Your task to perform on an android device: open app "Facebook Messenger" Image 0: 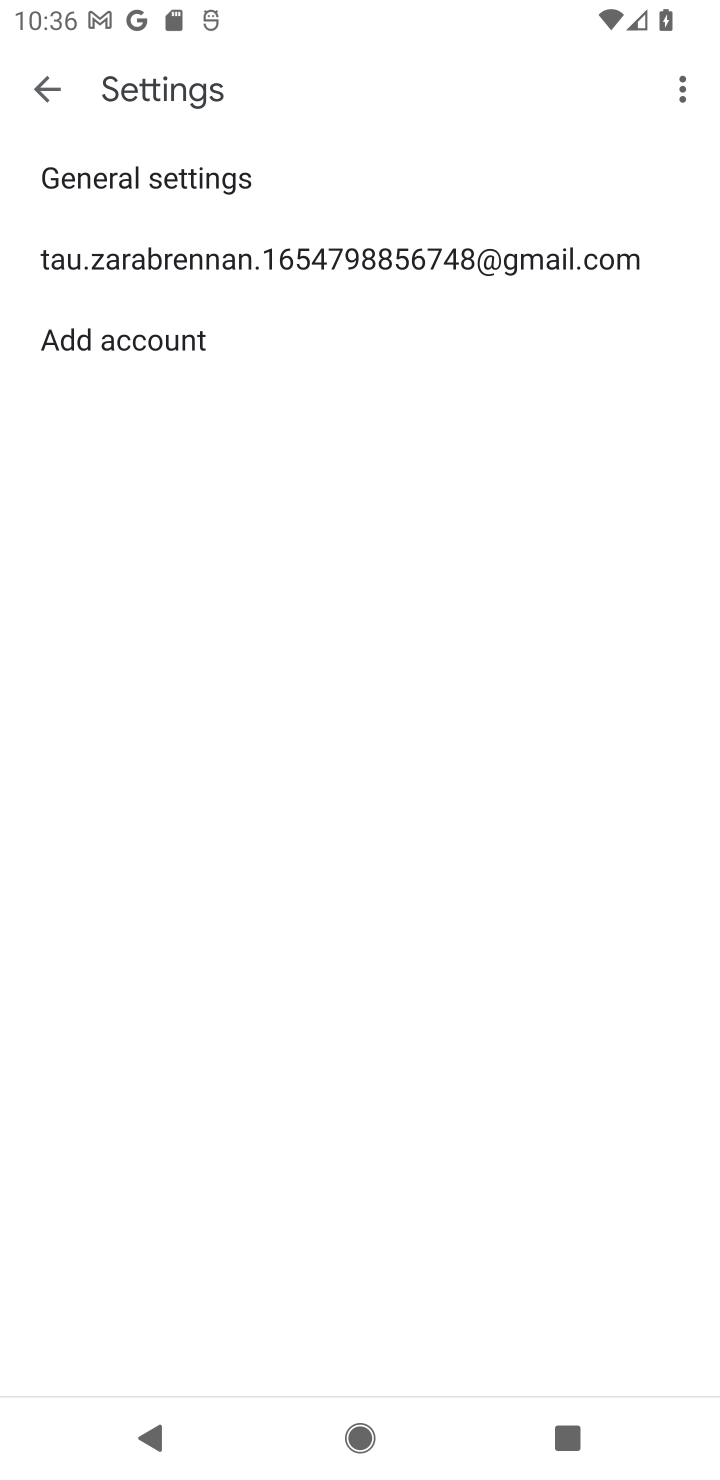
Step 0: press home button
Your task to perform on an android device: open app "Facebook Messenger" Image 1: 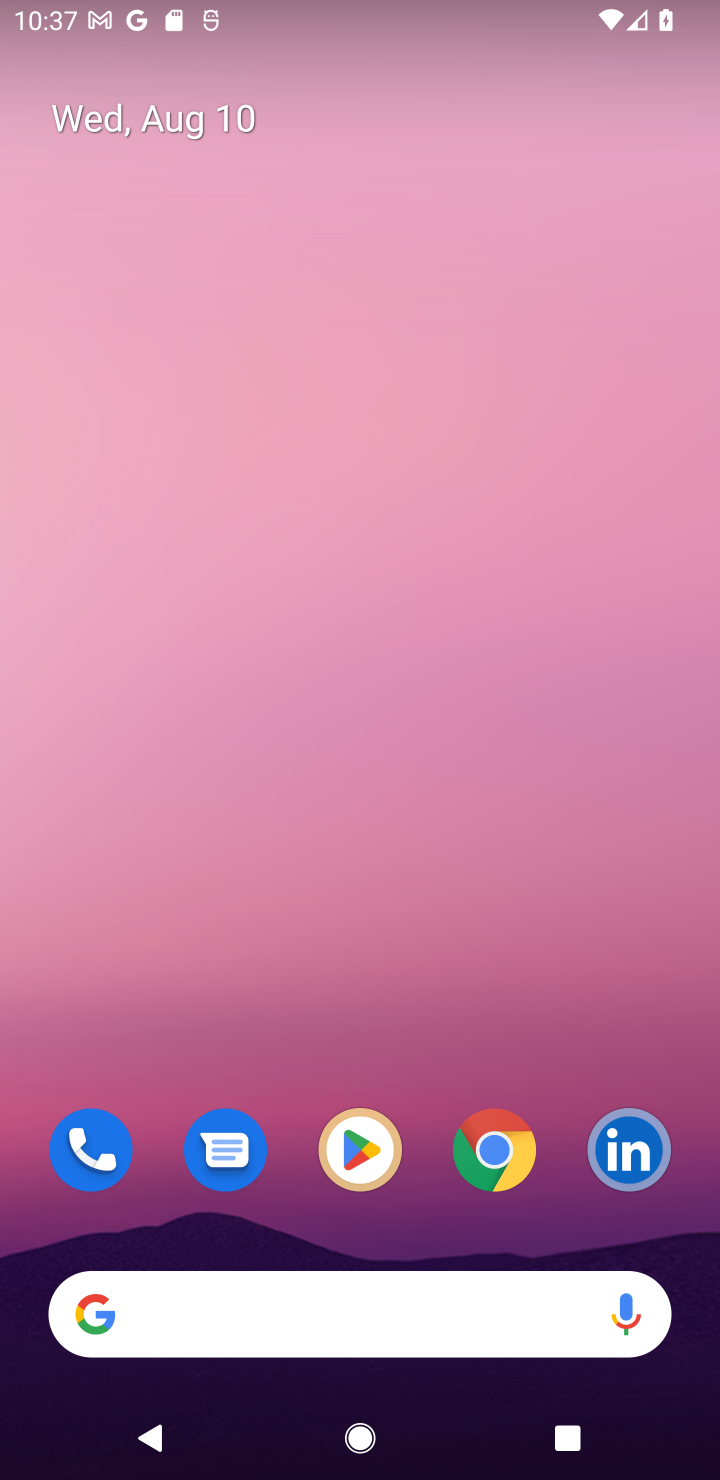
Step 1: click (355, 1174)
Your task to perform on an android device: open app "Facebook Messenger" Image 2: 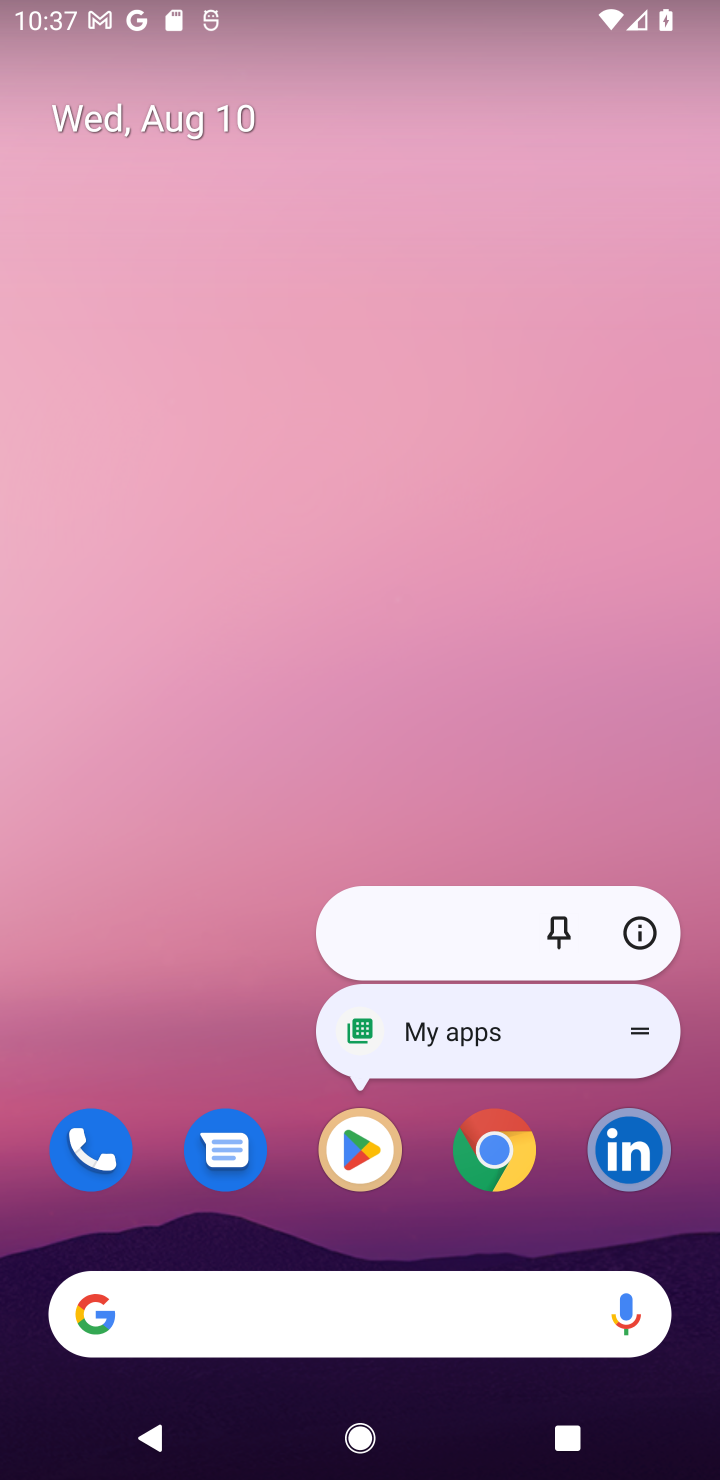
Step 2: click (350, 1151)
Your task to perform on an android device: open app "Facebook Messenger" Image 3: 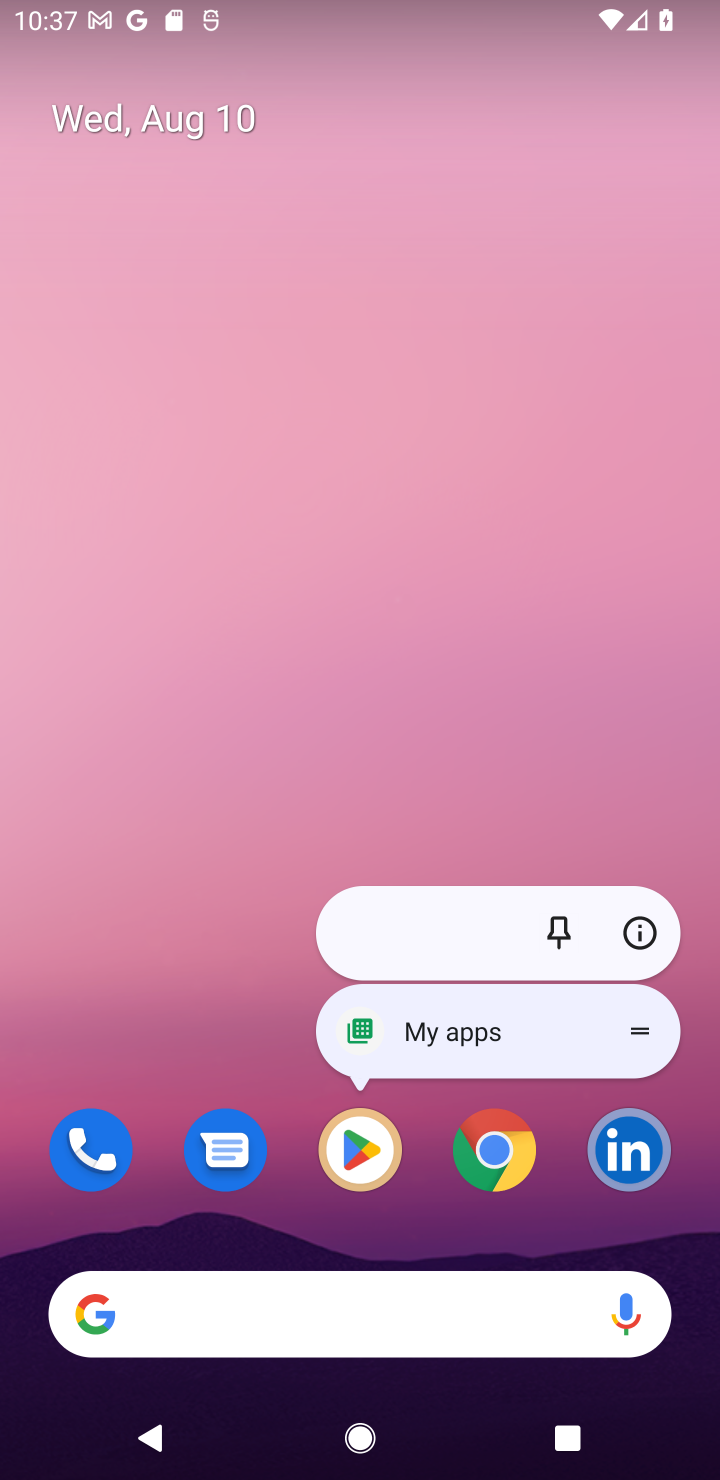
Step 3: click (350, 1151)
Your task to perform on an android device: open app "Facebook Messenger" Image 4: 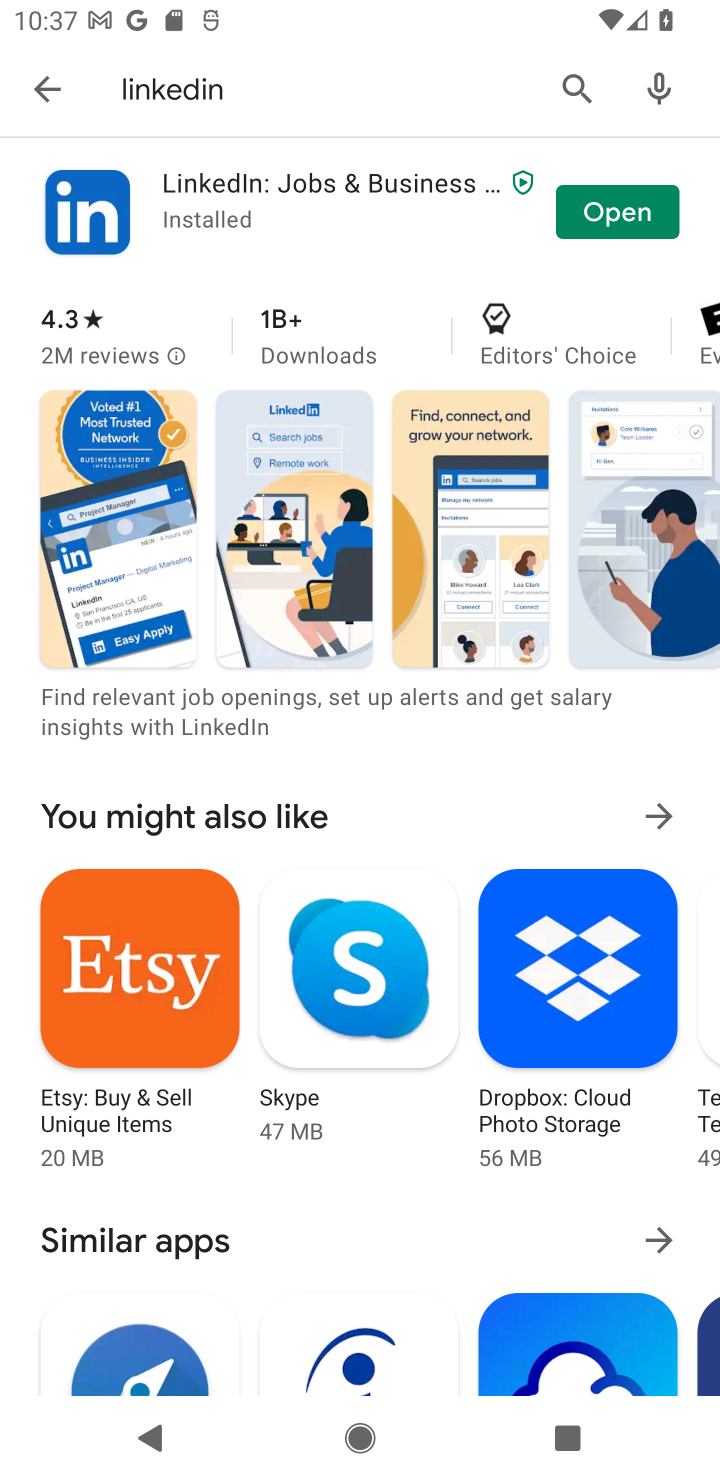
Step 4: click (585, 85)
Your task to perform on an android device: open app "Facebook Messenger" Image 5: 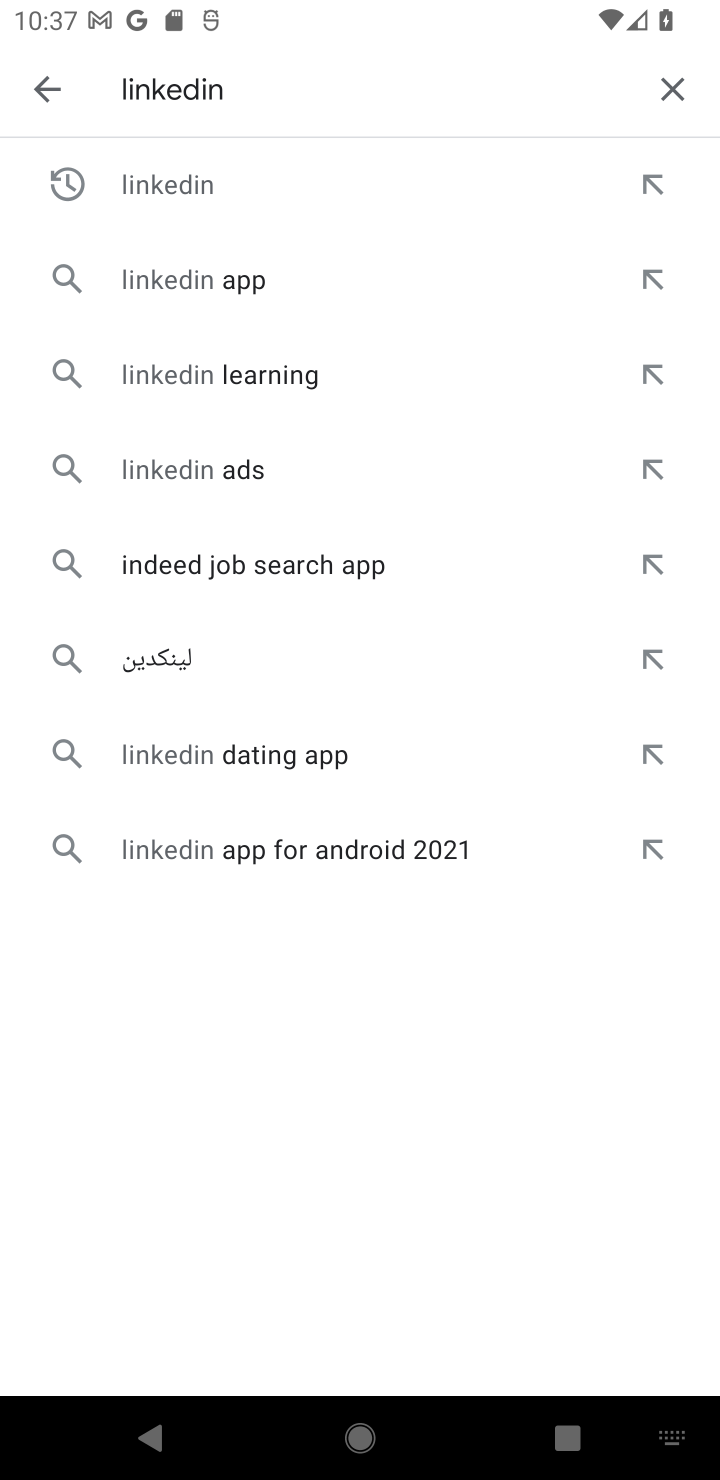
Step 5: click (660, 76)
Your task to perform on an android device: open app "Facebook Messenger" Image 6: 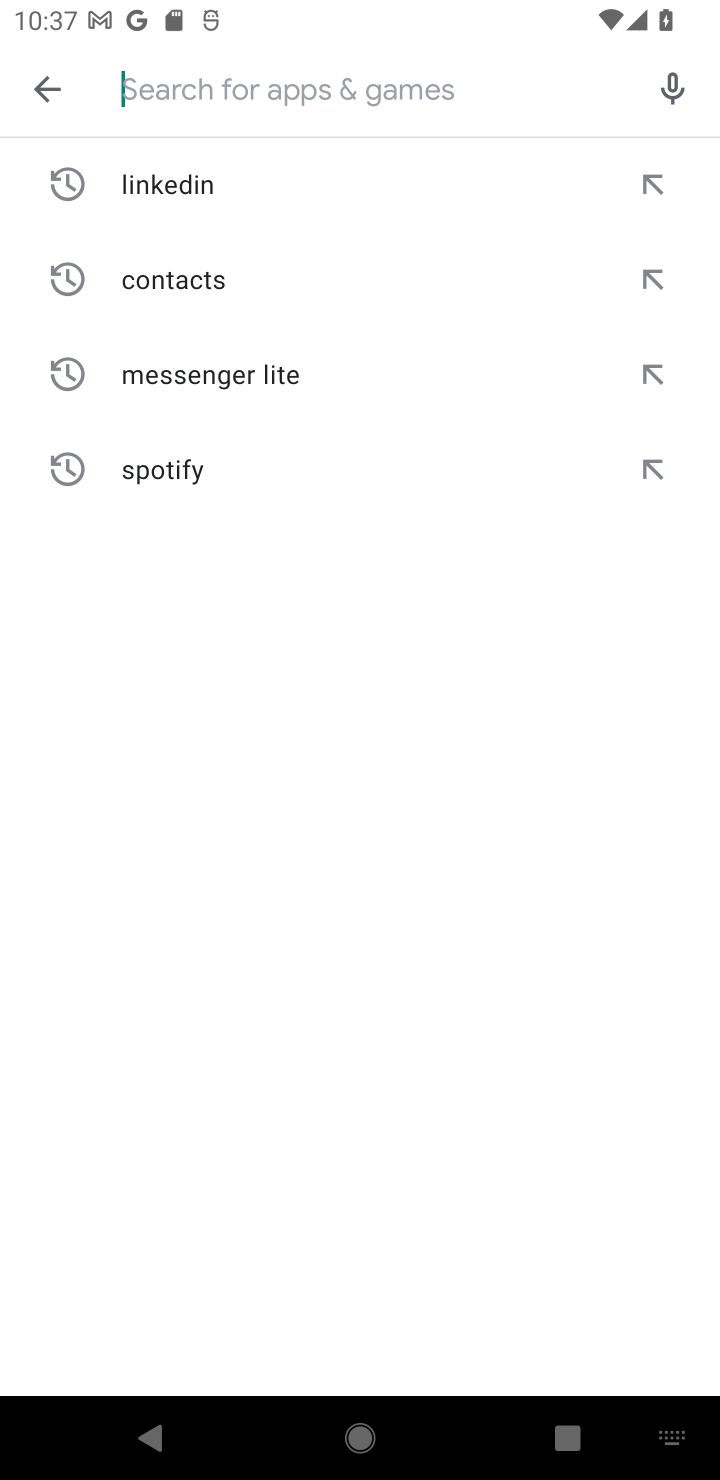
Step 6: type "Facebook Messenger"
Your task to perform on an android device: open app "Facebook Messenger" Image 7: 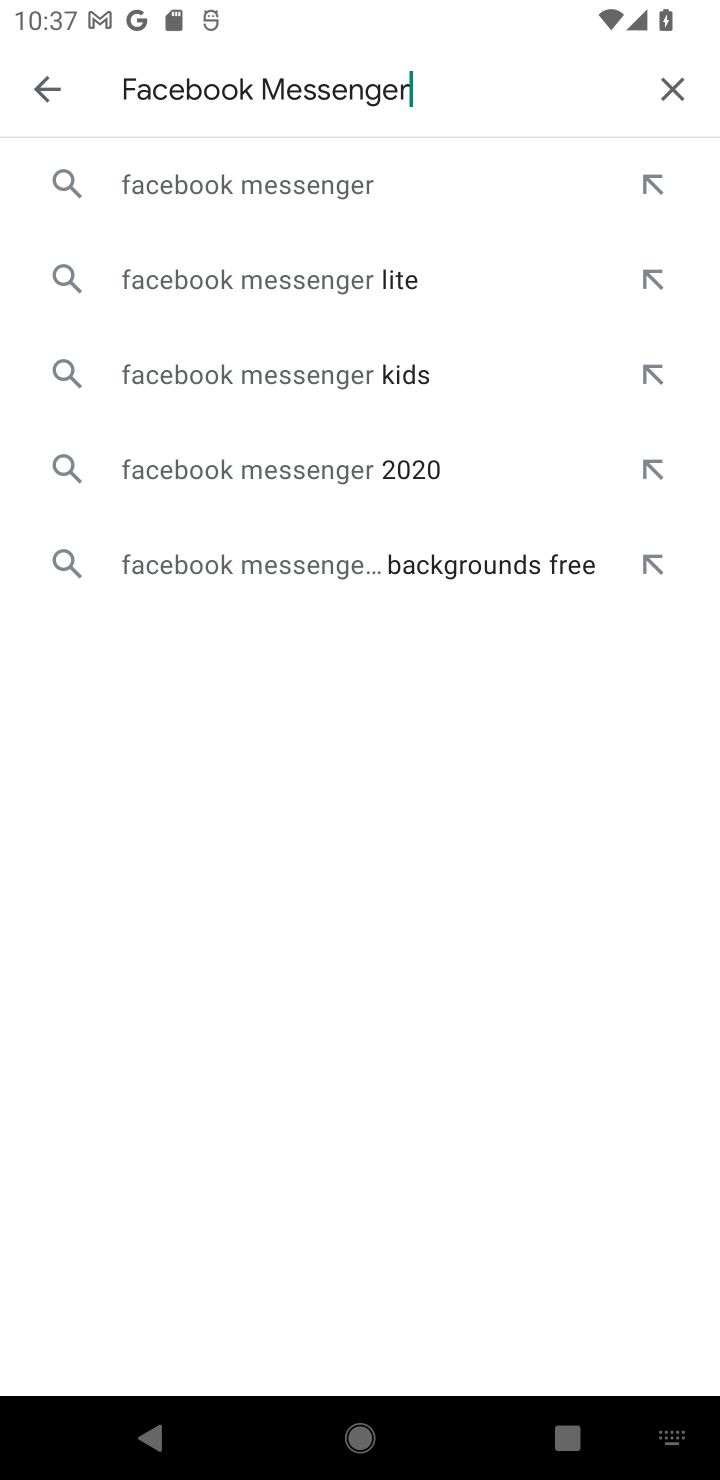
Step 7: click (327, 190)
Your task to perform on an android device: open app "Facebook Messenger" Image 8: 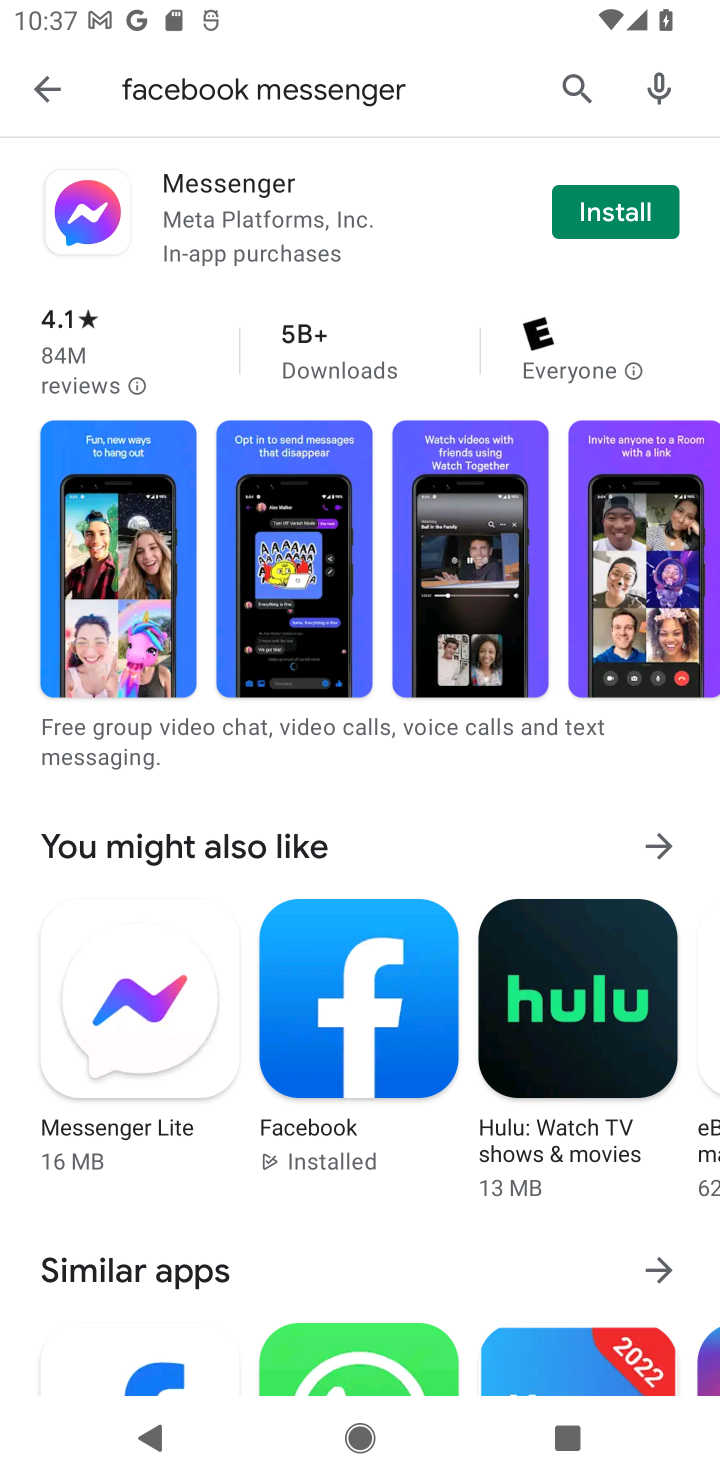
Step 8: task complete